Your task to perform on an android device: find snoozed emails in the gmail app Image 0: 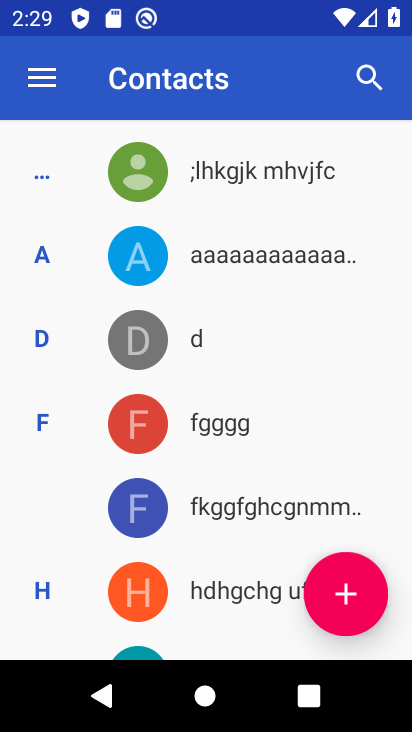
Step 0: press back button
Your task to perform on an android device: find snoozed emails in the gmail app Image 1: 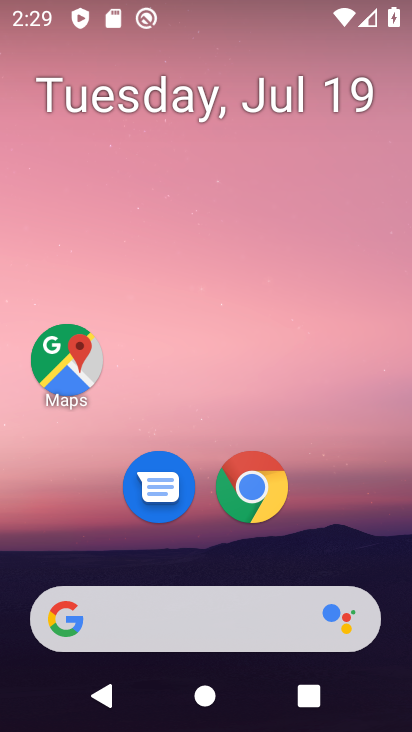
Step 1: drag from (181, 553) to (334, 4)
Your task to perform on an android device: find snoozed emails in the gmail app Image 2: 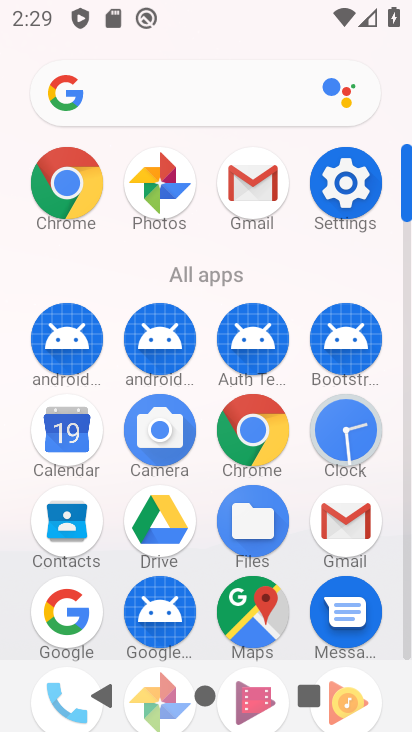
Step 2: click (232, 187)
Your task to perform on an android device: find snoozed emails in the gmail app Image 3: 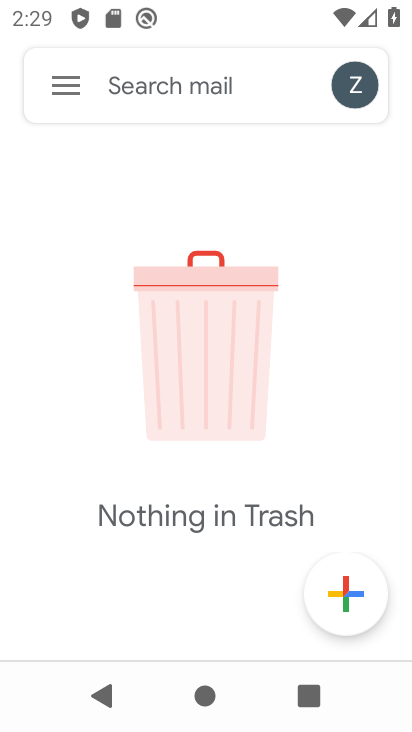
Step 3: click (62, 88)
Your task to perform on an android device: find snoozed emails in the gmail app Image 4: 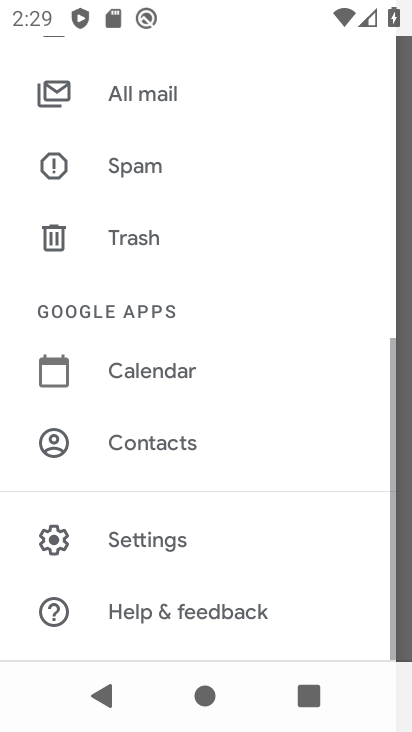
Step 4: click (206, 110)
Your task to perform on an android device: find snoozed emails in the gmail app Image 5: 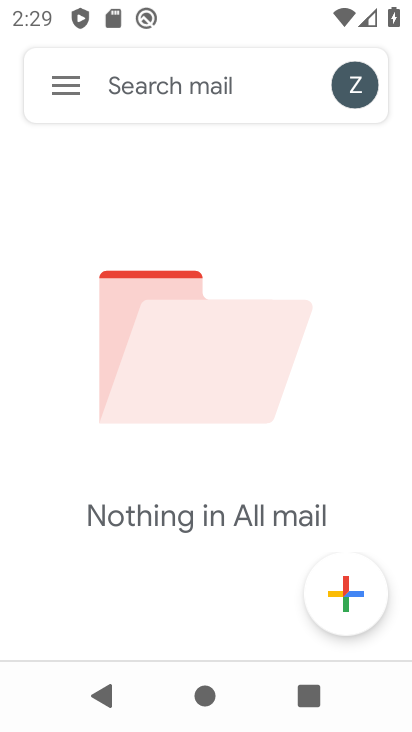
Step 5: task complete